Your task to perform on an android device: When is my next appointment? Image 0: 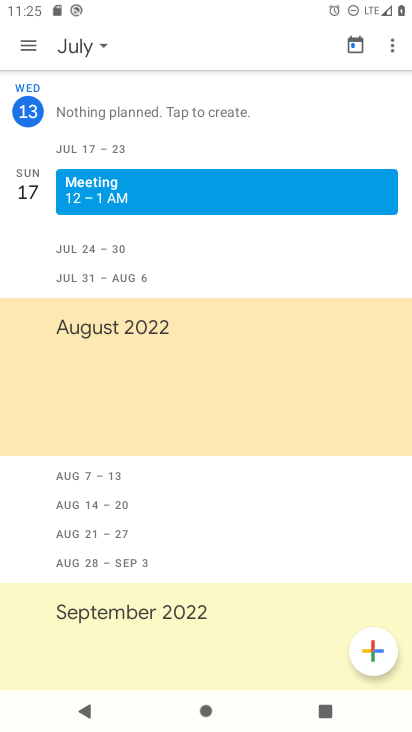
Step 0: press home button
Your task to perform on an android device: When is my next appointment? Image 1: 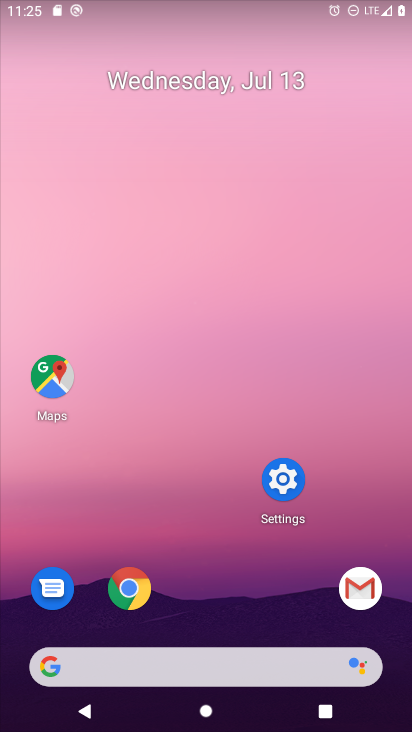
Step 1: drag from (272, 688) to (199, 50)
Your task to perform on an android device: When is my next appointment? Image 2: 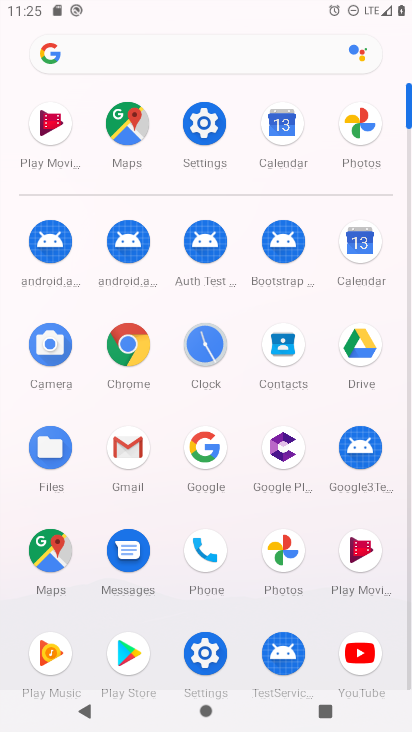
Step 2: click (282, 140)
Your task to perform on an android device: When is my next appointment? Image 3: 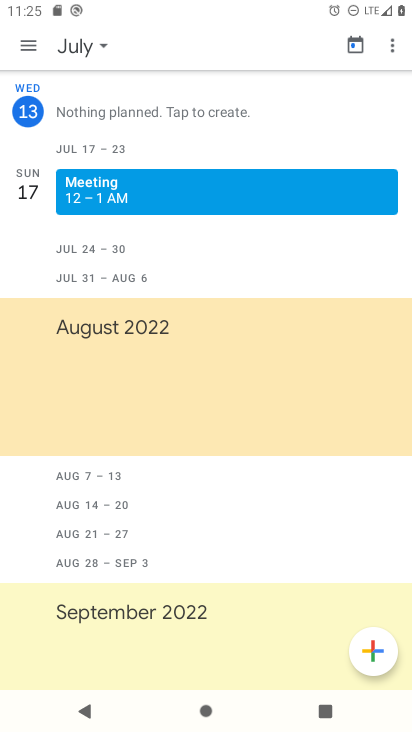
Step 3: click (28, 51)
Your task to perform on an android device: When is my next appointment? Image 4: 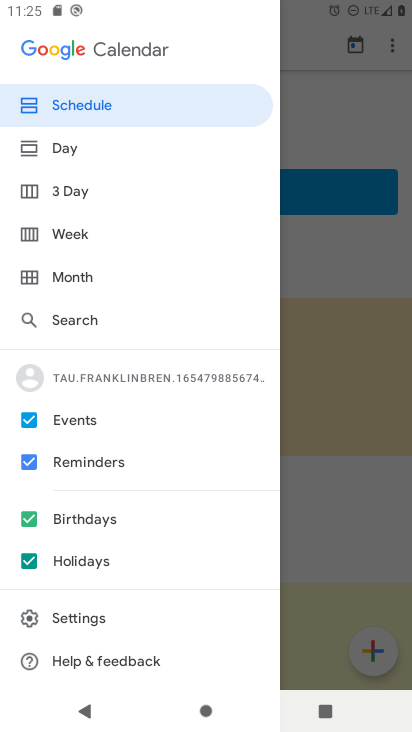
Step 4: click (83, 272)
Your task to perform on an android device: When is my next appointment? Image 5: 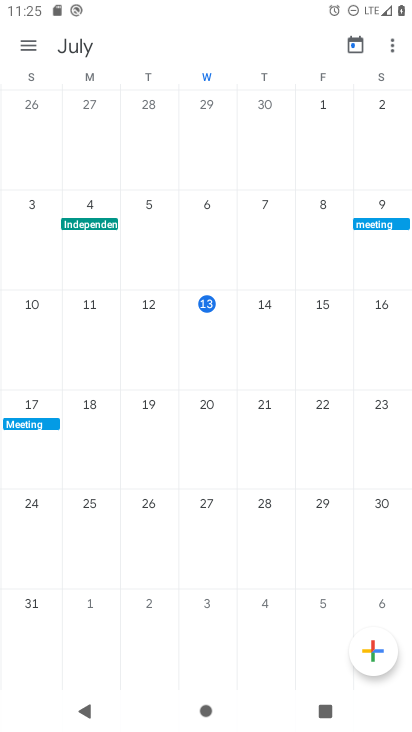
Step 5: click (210, 308)
Your task to perform on an android device: When is my next appointment? Image 6: 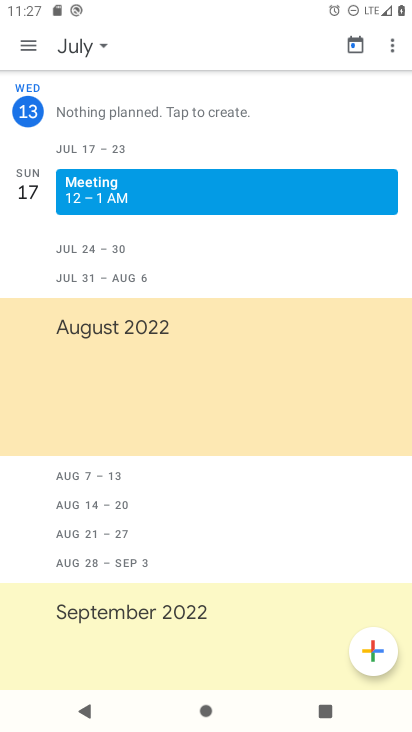
Step 6: task complete